Your task to perform on an android device: turn off location Image 0: 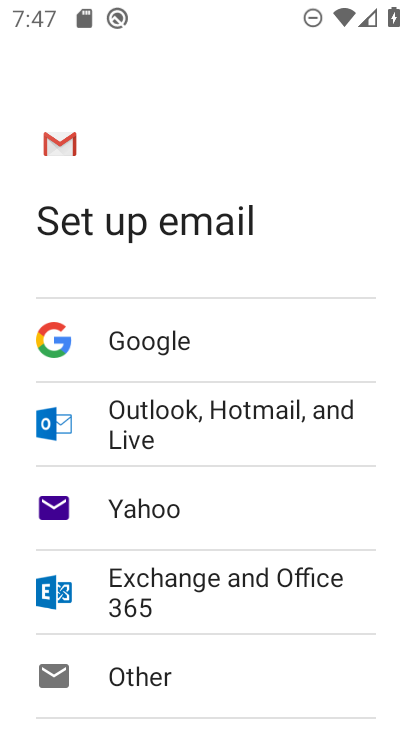
Step 0: press home button
Your task to perform on an android device: turn off location Image 1: 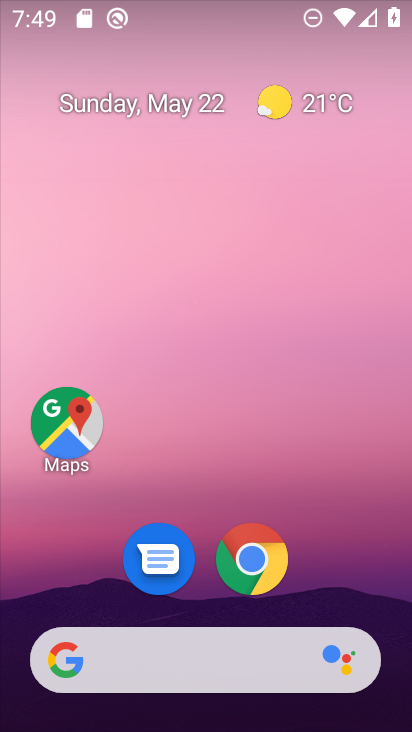
Step 1: drag from (243, 693) to (230, 168)
Your task to perform on an android device: turn off location Image 2: 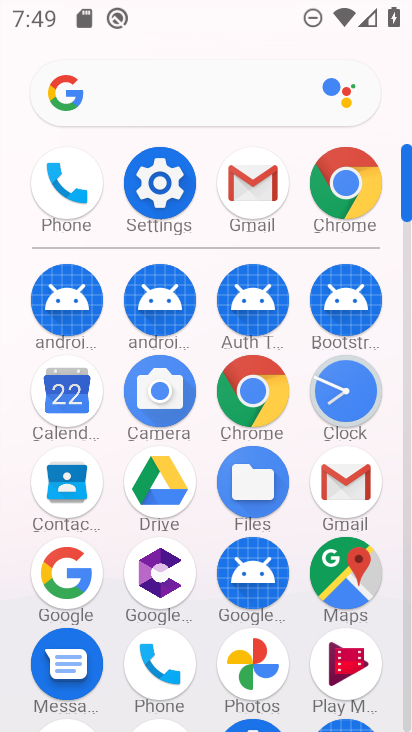
Step 2: click (158, 189)
Your task to perform on an android device: turn off location Image 3: 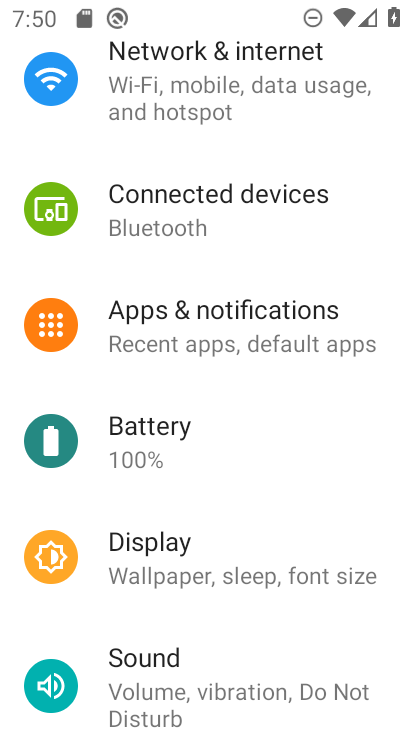
Step 3: drag from (186, 183) to (273, 522)
Your task to perform on an android device: turn off location Image 4: 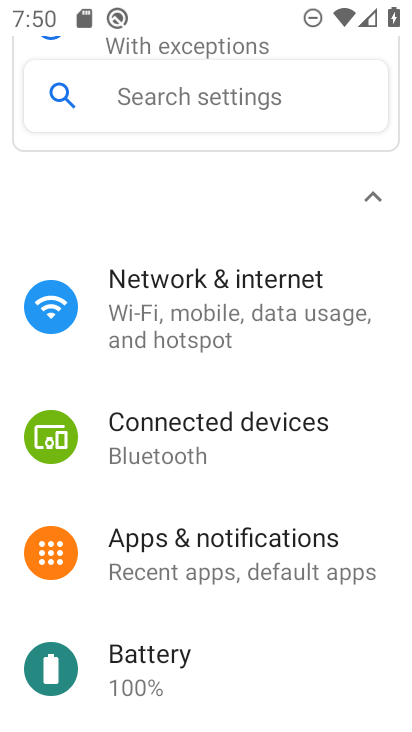
Step 4: click (180, 91)
Your task to perform on an android device: turn off location Image 5: 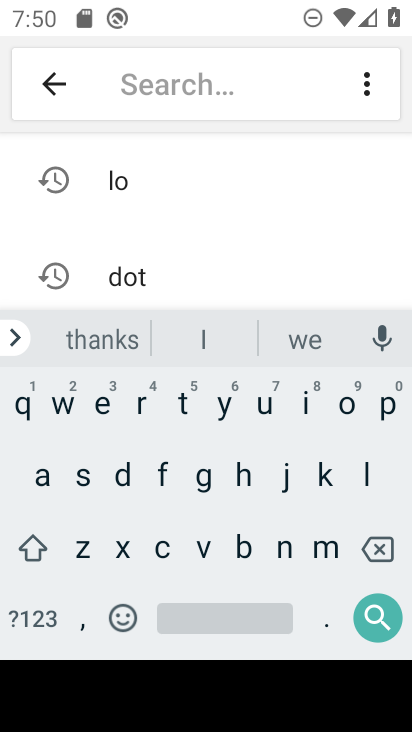
Step 5: click (382, 468)
Your task to perform on an android device: turn off location Image 6: 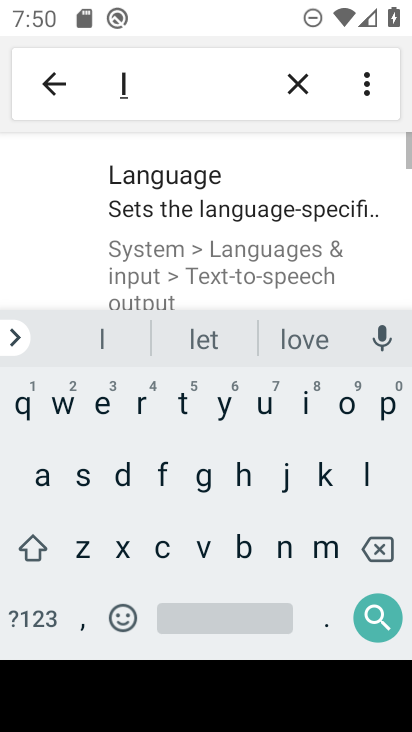
Step 6: click (350, 412)
Your task to perform on an android device: turn off location Image 7: 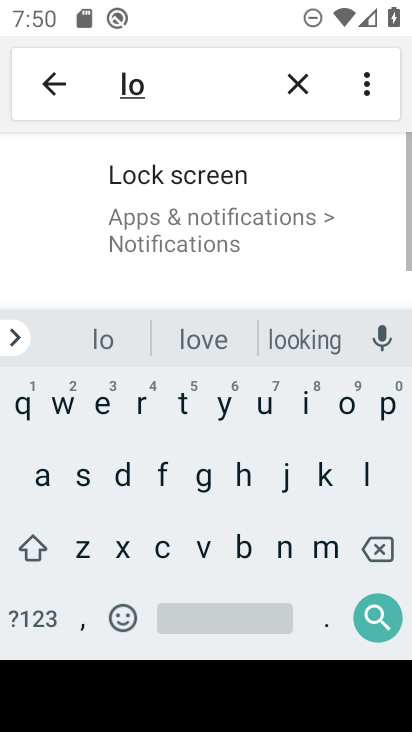
Step 7: drag from (188, 254) to (177, 133)
Your task to perform on an android device: turn off location Image 8: 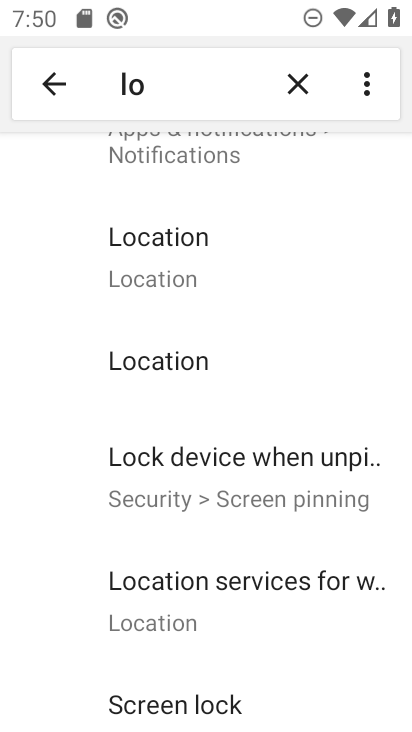
Step 8: click (213, 284)
Your task to perform on an android device: turn off location Image 9: 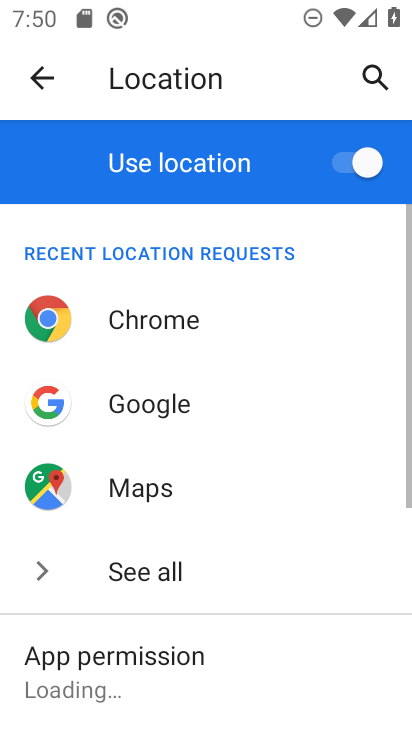
Step 9: click (361, 155)
Your task to perform on an android device: turn off location Image 10: 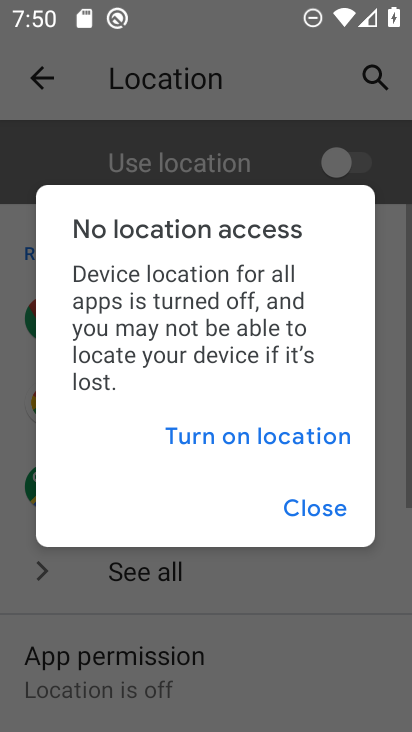
Step 10: task complete